Your task to perform on an android device: Open the stopwatch Image 0: 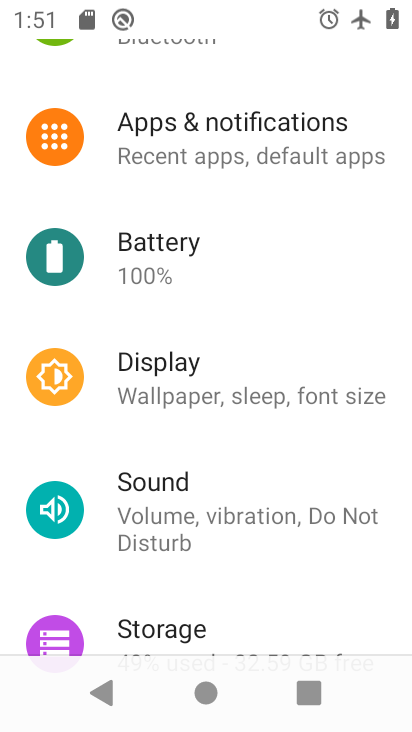
Step 0: press home button
Your task to perform on an android device: Open the stopwatch Image 1: 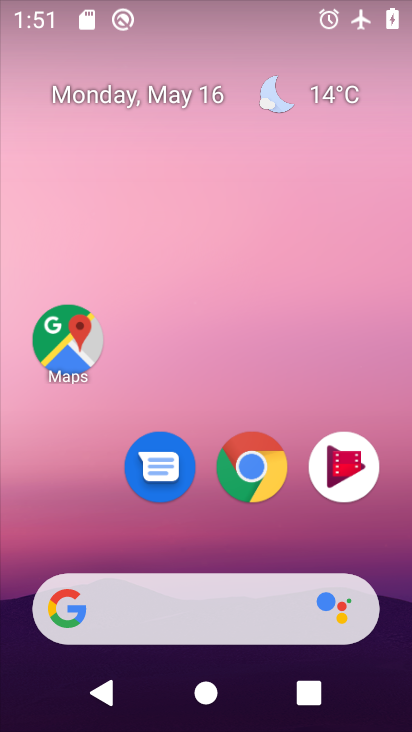
Step 1: drag from (222, 490) to (228, 249)
Your task to perform on an android device: Open the stopwatch Image 2: 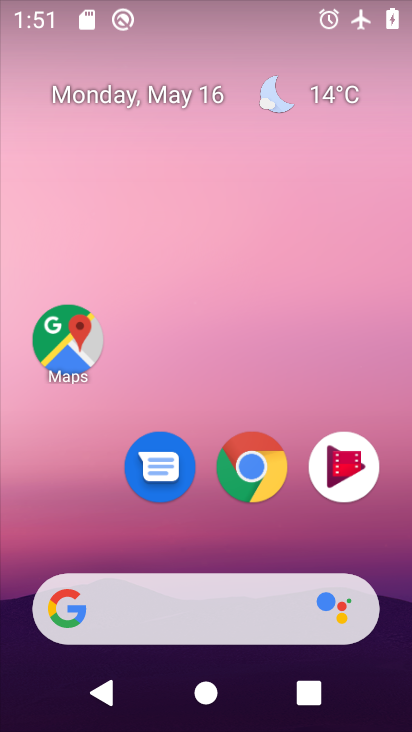
Step 2: drag from (125, 624) to (180, 207)
Your task to perform on an android device: Open the stopwatch Image 3: 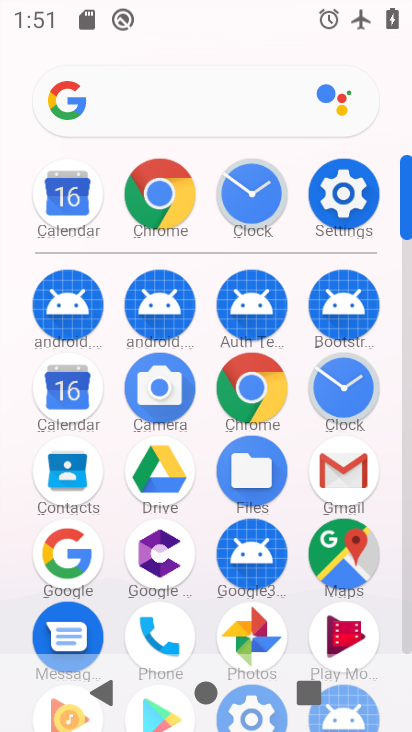
Step 3: click (353, 392)
Your task to perform on an android device: Open the stopwatch Image 4: 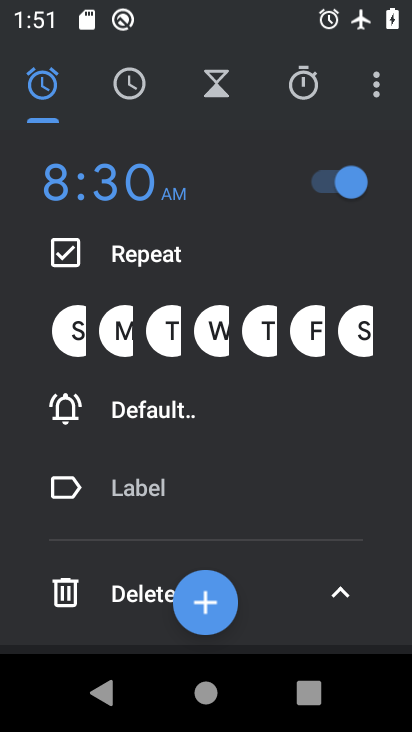
Step 4: click (298, 76)
Your task to perform on an android device: Open the stopwatch Image 5: 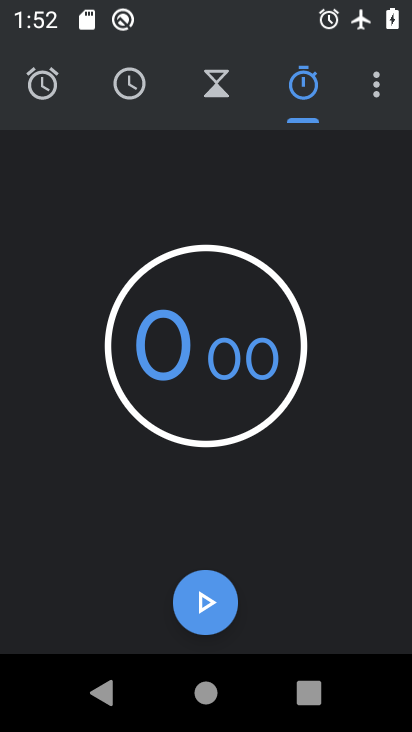
Step 5: task complete